Your task to perform on an android device: Open the calendar app, open the side menu, and click the "Day" option Image 0: 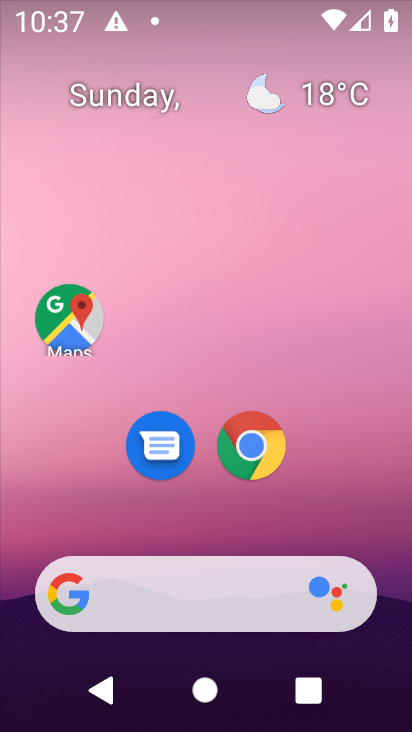
Step 0: drag from (249, 486) to (52, 12)
Your task to perform on an android device: Open the calendar app, open the side menu, and click the "Day" option Image 1: 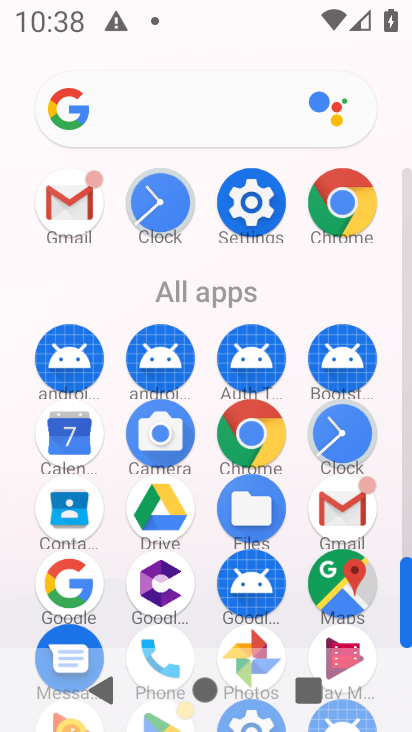
Step 1: click (86, 432)
Your task to perform on an android device: Open the calendar app, open the side menu, and click the "Day" option Image 2: 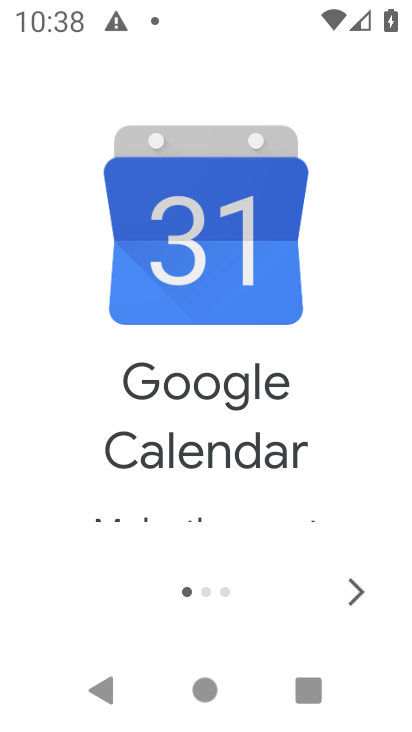
Step 2: click (353, 598)
Your task to perform on an android device: Open the calendar app, open the side menu, and click the "Day" option Image 3: 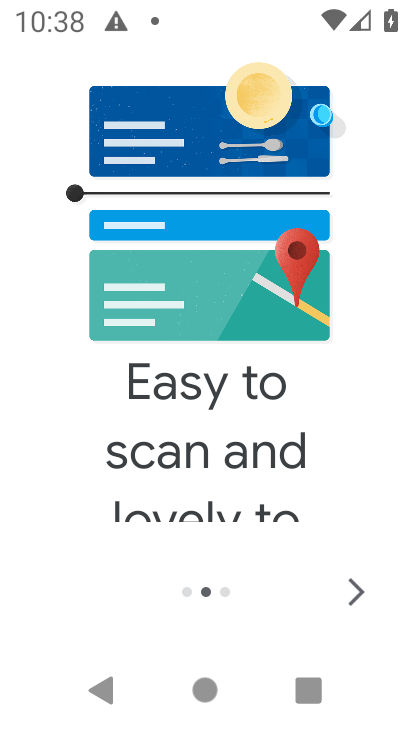
Step 3: click (353, 598)
Your task to perform on an android device: Open the calendar app, open the side menu, and click the "Day" option Image 4: 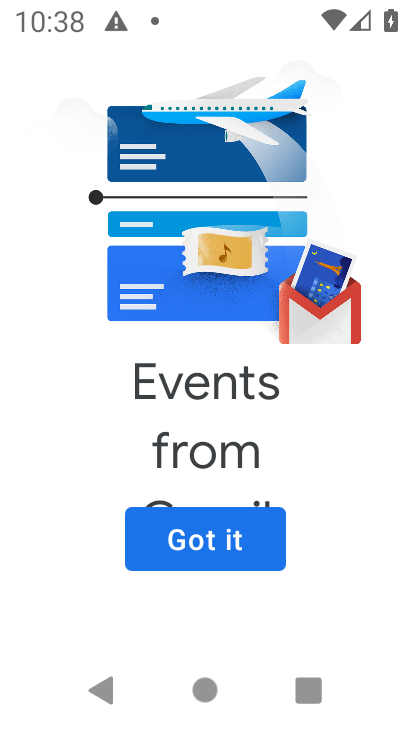
Step 4: click (359, 589)
Your task to perform on an android device: Open the calendar app, open the side menu, and click the "Day" option Image 5: 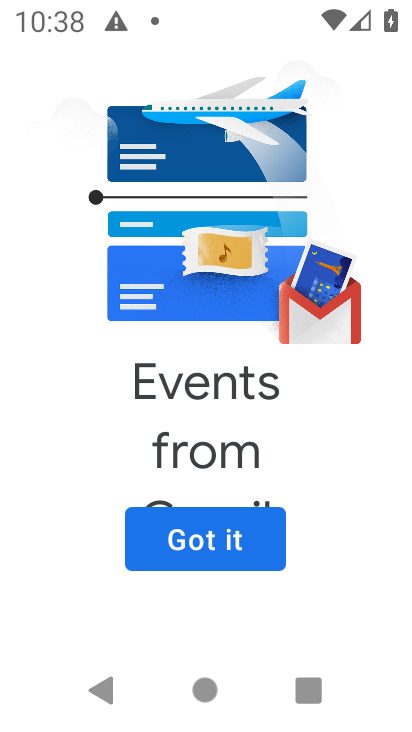
Step 5: click (225, 551)
Your task to perform on an android device: Open the calendar app, open the side menu, and click the "Day" option Image 6: 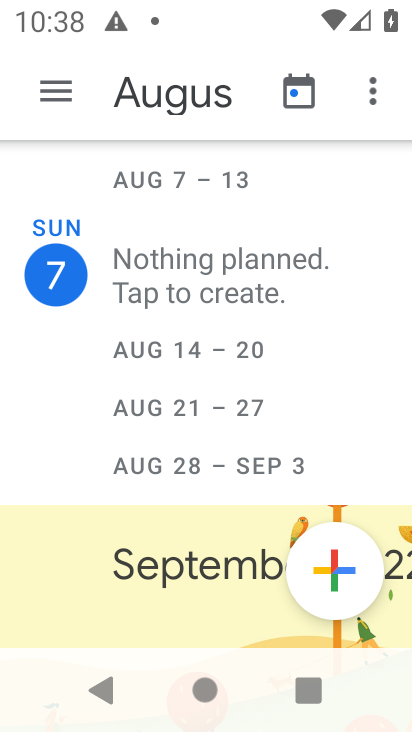
Step 6: click (57, 93)
Your task to perform on an android device: Open the calendar app, open the side menu, and click the "Day" option Image 7: 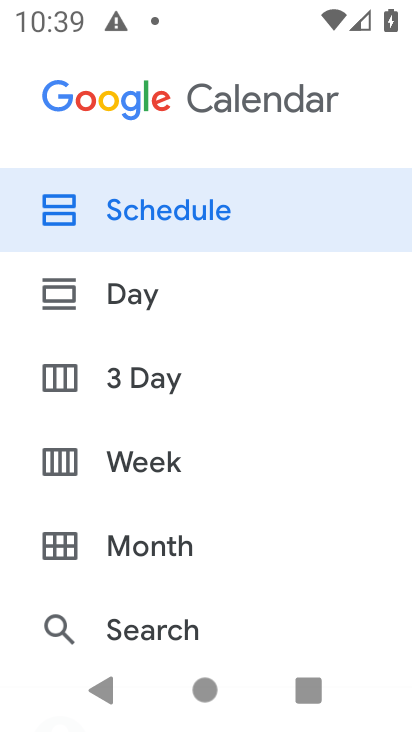
Step 7: click (150, 299)
Your task to perform on an android device: Open the calendar app, open the side menu, and click the "Day" option Image 8: 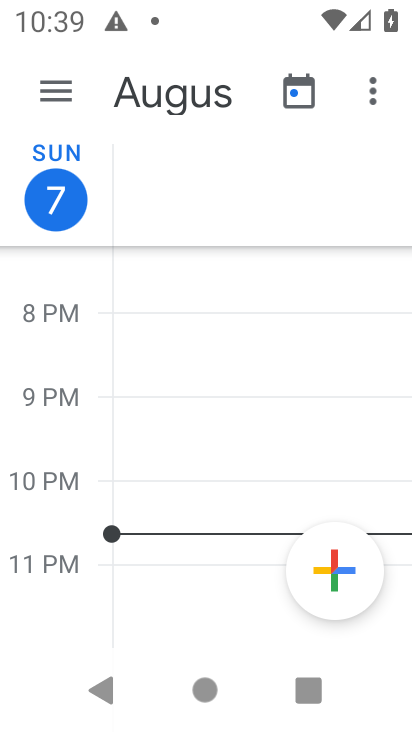
Step 8: task complete